Your task to perform on an android device: Open settings on Google Maps Image 0: 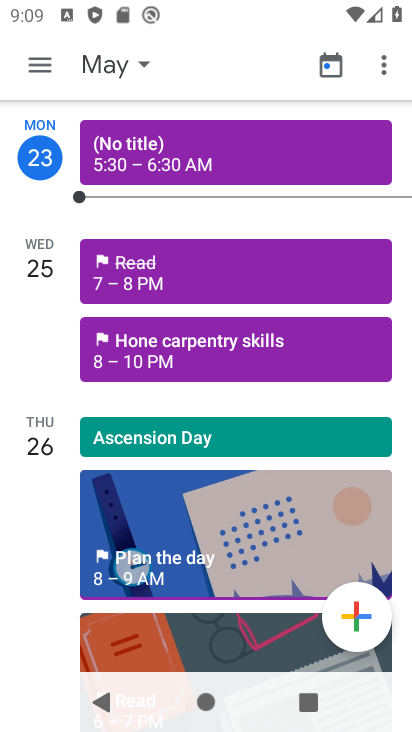
Step 0: press back button
Your task to perform on an android device: Open settings on Google Maps Image 1: 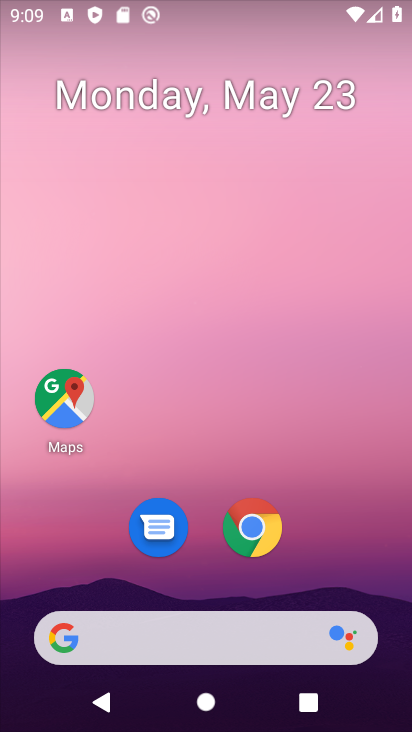
Step 1: drag from (307, 545) to (280, 19)
Your task to perform on an android device: Open settings on Google Maps Image 2: 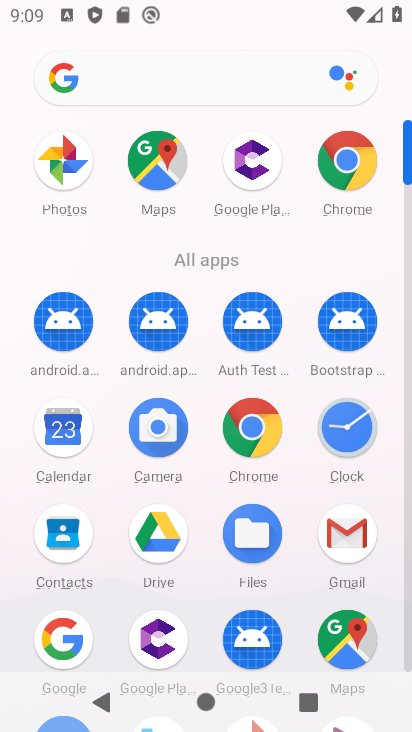
Step 2: drag from (14, 611) to (13, 275)
Your task to perform on an android device: Open settings on Google Maps Image 3: 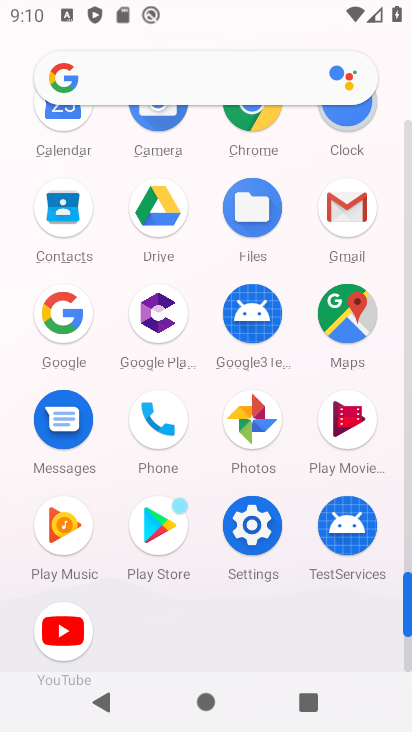
Step 3: click (346, 308)
Your task to perform on an android device: Open settings on Google Maps Image 4: 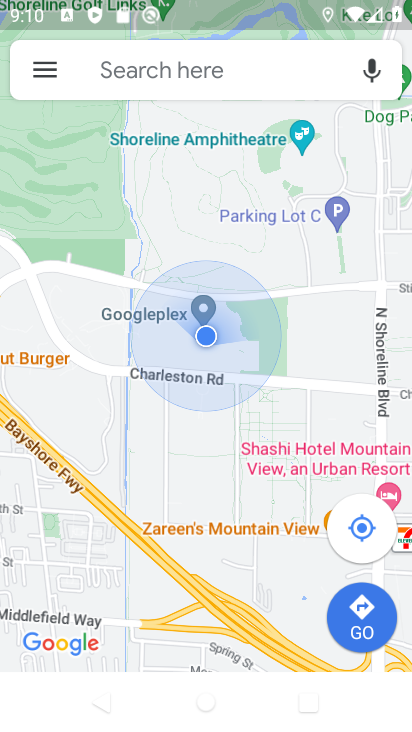
Step 4: task complete